Your task to perform on an android device: Go to accessibility settings Image 0: 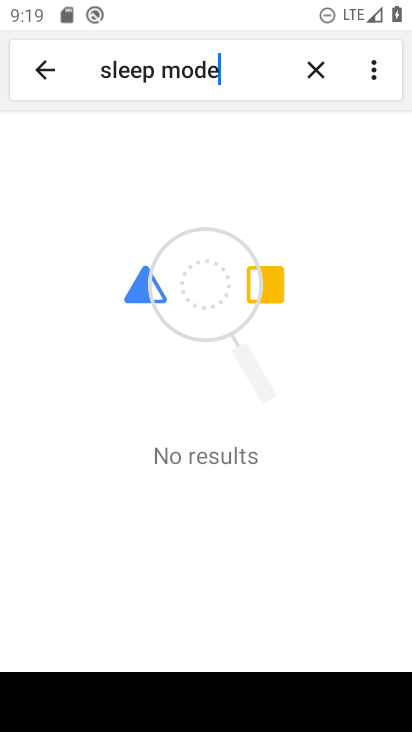
Step 0: press home button
Your task to perform on an android device: Go to accessibility settings Image 1: 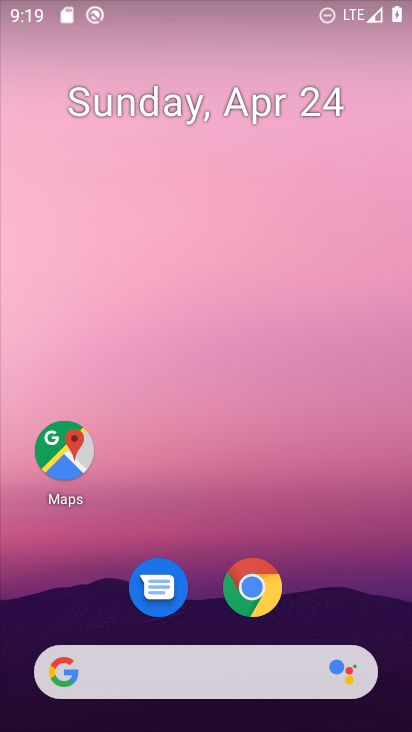
Step 1: drag from (305, 578) to (306, 228)
Your task to perform on an android device: Go to accessibility settings Image 2: 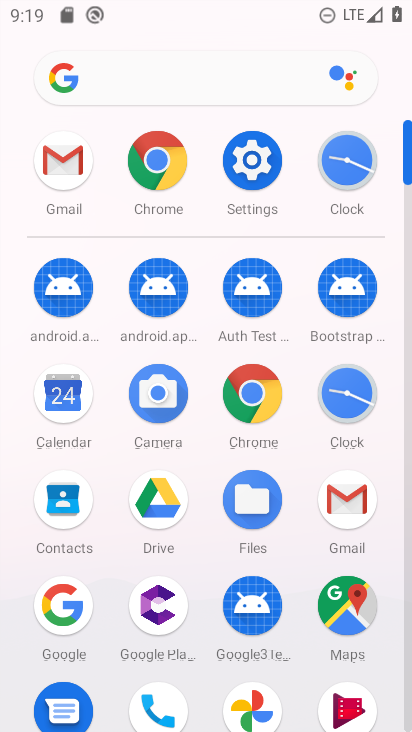
Step 2: click (245, 181)
Your task to perform on an android device: Go to accessibility settings Image 3: 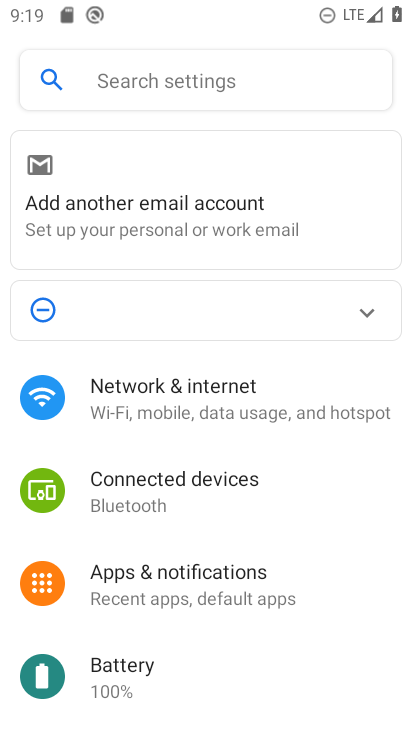
Step 3: drag from (249, 631) to (275, 195)
Your task to perform on an android device: Go to accessibility settings Image 4: 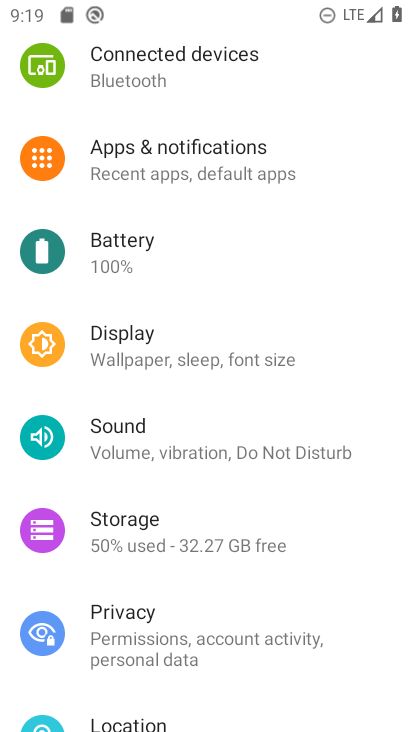
Step 4: drag from (285, 587) to (333, 263)
Your task to perform on an android device: Go to accessibility settings Image 5: 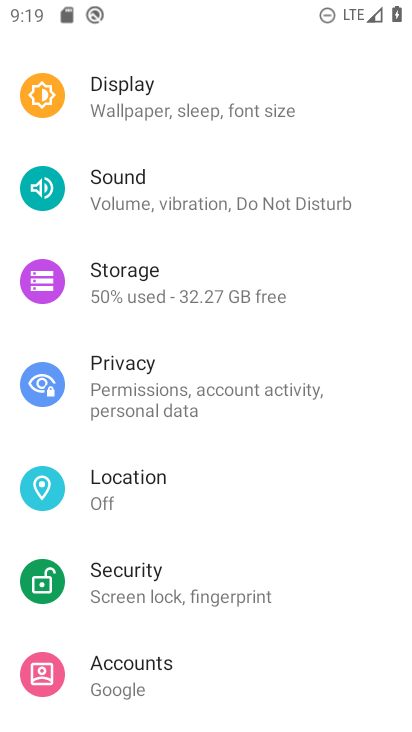
Step 5: drag from (268, 579) to (284, 229)
Your task to perform on an android device: Go to accessibility settings Image 6: 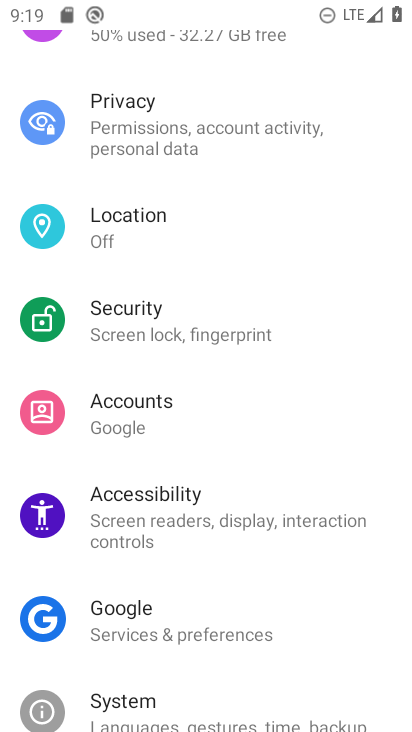
Step 6: click (207, 516)
Your task to perform on an android device: Go to accessibility settings Image 7: 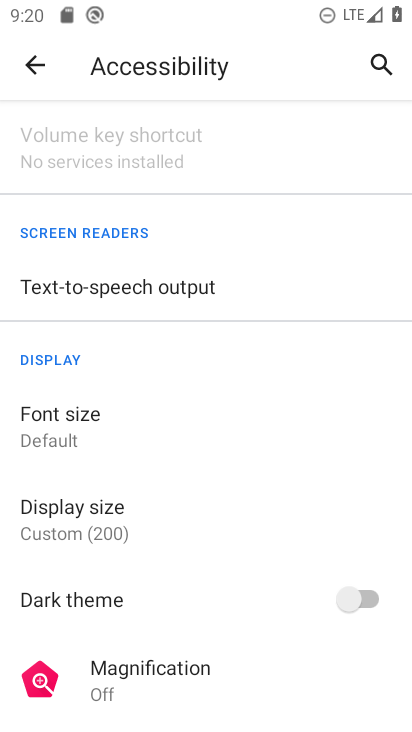
Step 7: task complete